Your task to perform on an android device: toggle translation in the chrome app Image 0: 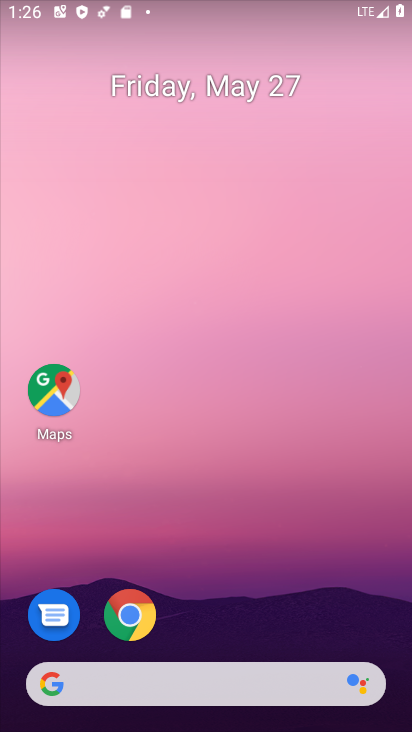
Step 0: click (121, 614)
Your task to perform on an android device: toggle translation in the chrome app Image 1: 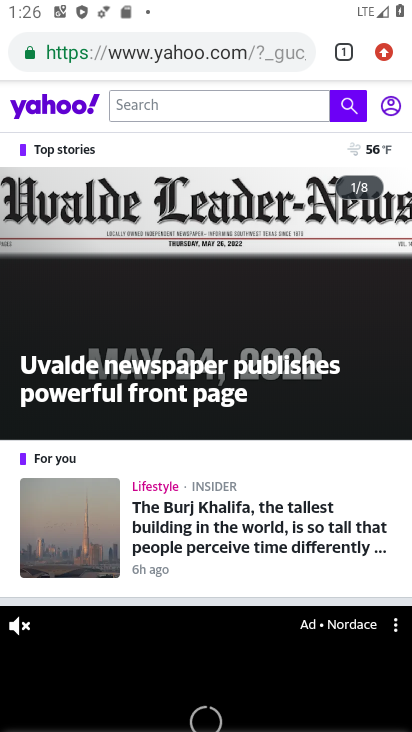
Step 1: click (383, 51)
Your task to perform on an android device: toggle translation in the chrome app Image 2: 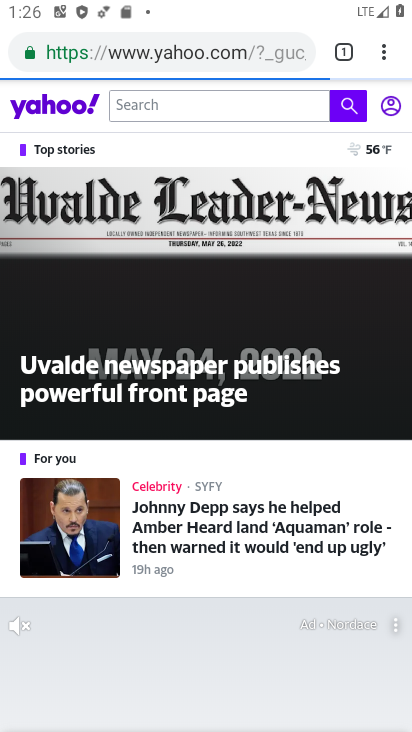
Step 2: click (382, 50)
Your task to perform on an android device: toggle translation in the chrome app Image 3: 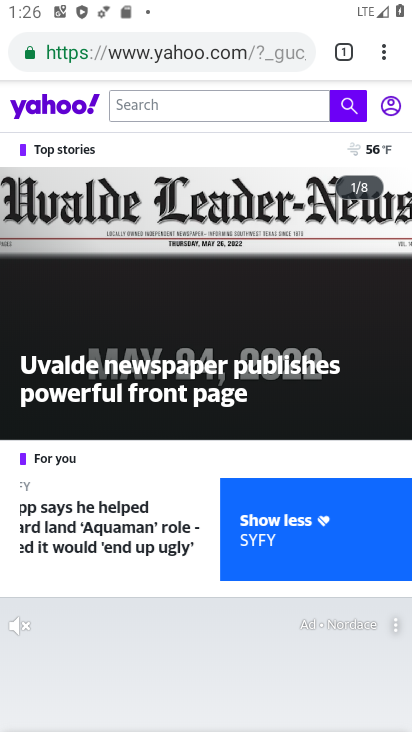
Step 3: click (386, 48)
Your task to perform on an android device: toggle translation in the chrome app Image 4: 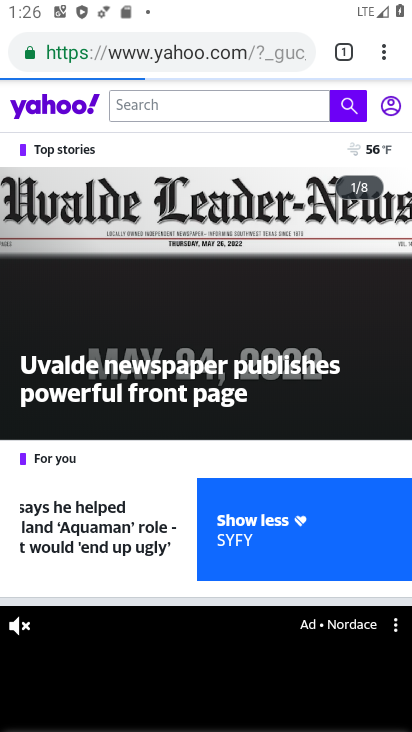
Step 4: click (393, 53)
Your task to perform on an android device: toggle translation in the chrome app Image 5: 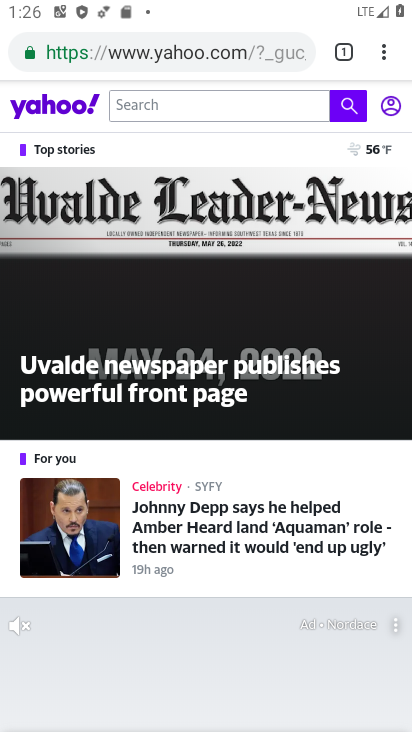
Step 5: click (386, 47)
Your task to perform on an android device: toggle translation in the chrome app Image 6: 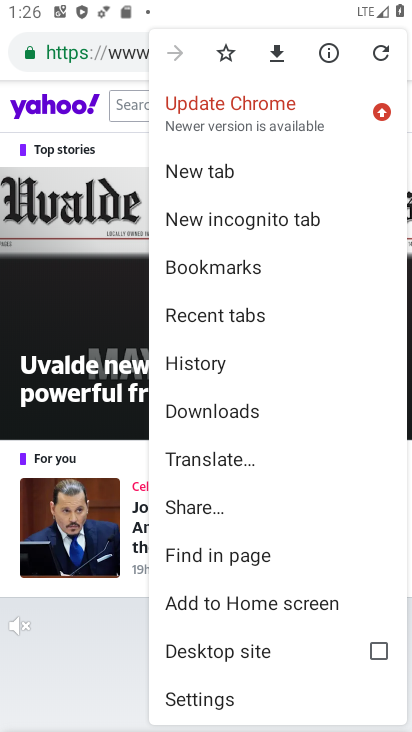
Step 6: click (213, 697)
Your task to perform on an android device: toggle translation in the chrome app Image 7: 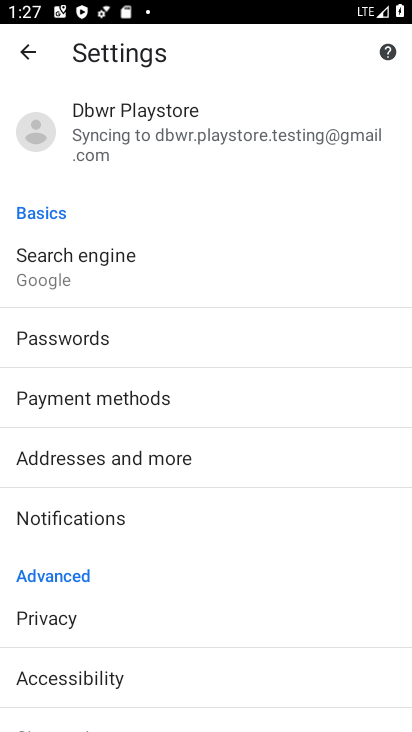
Step 7: drag from (108, 688) to (112, 269)
Your task to perform on an android device: toggle translation in the chrome app Image 8: 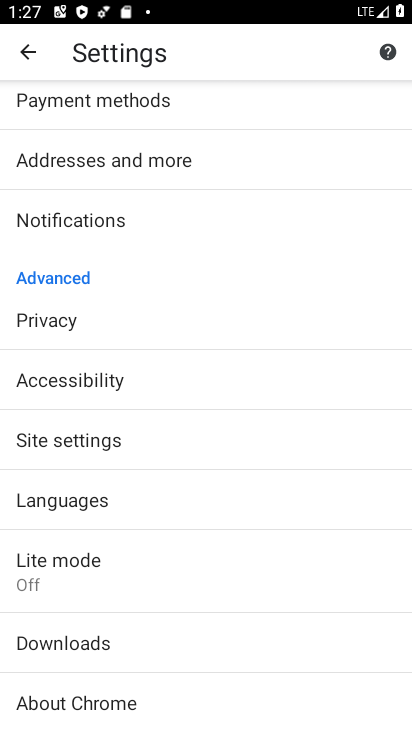
Step 8: click (82, 500)
Your task to perform on an android device: toggle translation in the chrome app Image 9: 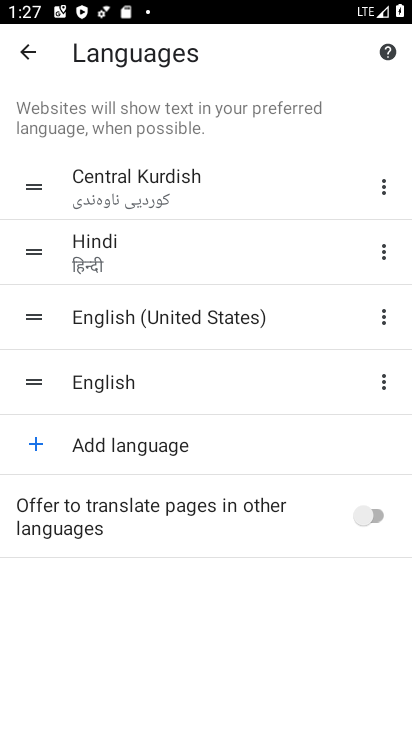
Step 9: click (374, 513)
Your task to perform on an android device: toggle translation in the chrome app Image 10: 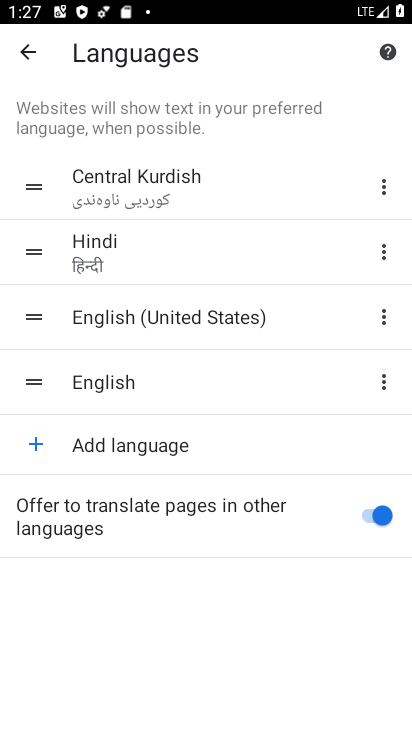
Step 10: task complete